Your task to perform on an android device: Open accessibility settings Image 0: 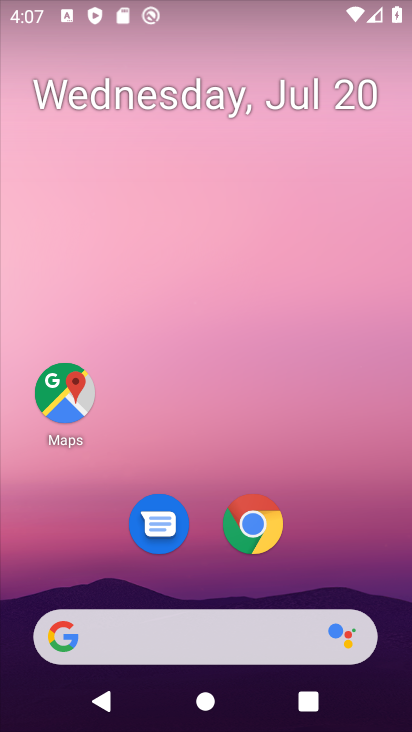
Step 0: drag from (341, 529) to (297, 125)
Your task to perform on an android device: Open accessibility settings Image 1: 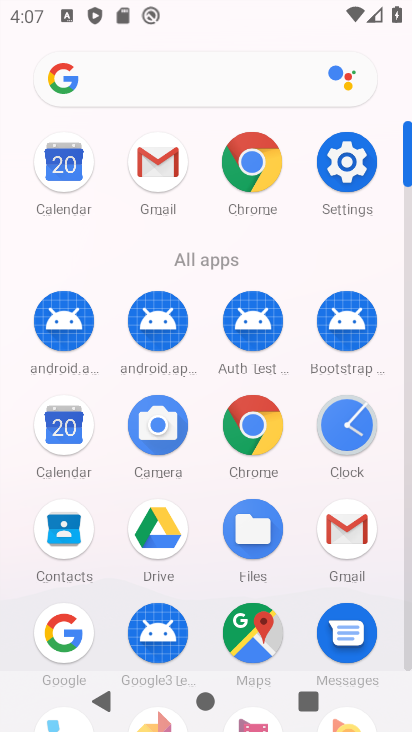
Step 1: click (342, 182)
Your task to perform on an android device: Open accessibility settings Image 2: 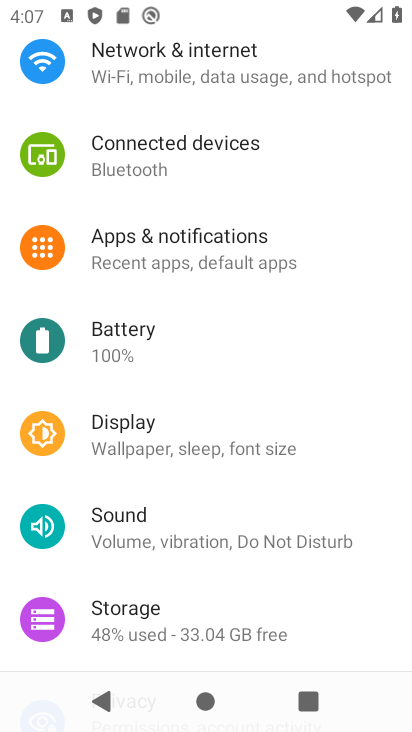
Step 2: drag from (251, 586) to (230, 141)
Your task to perform on an android device: Open accessibility settings Image 3: 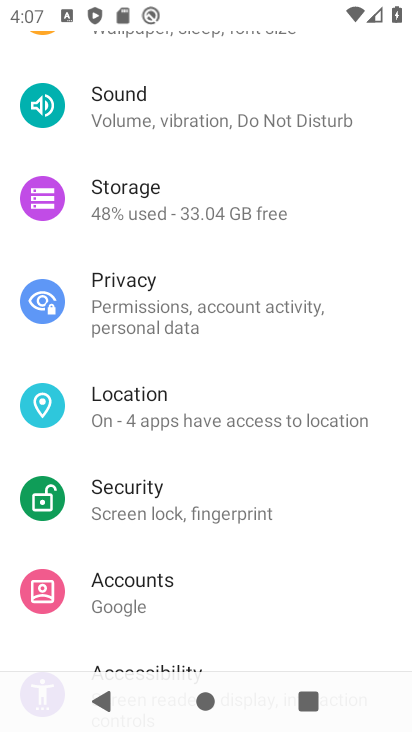
Step 3: drag from (237, 460) to (232, 138)
Your task to perform on an android device: Open accessibility settings Image 4: 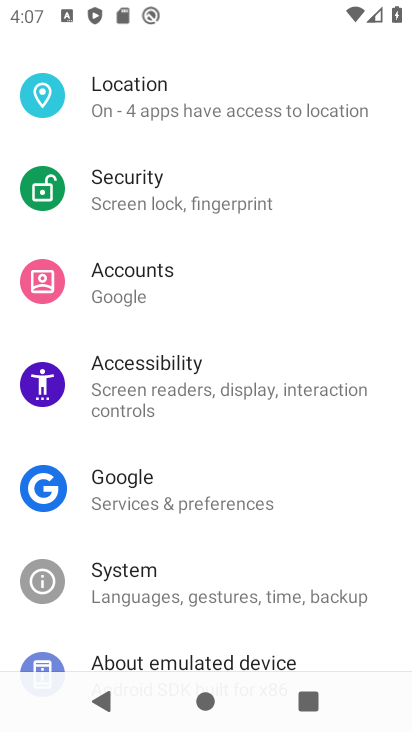
Step 4: click (215, 374)
Your task to perform on an android device: Open accessibility settings Image 5: 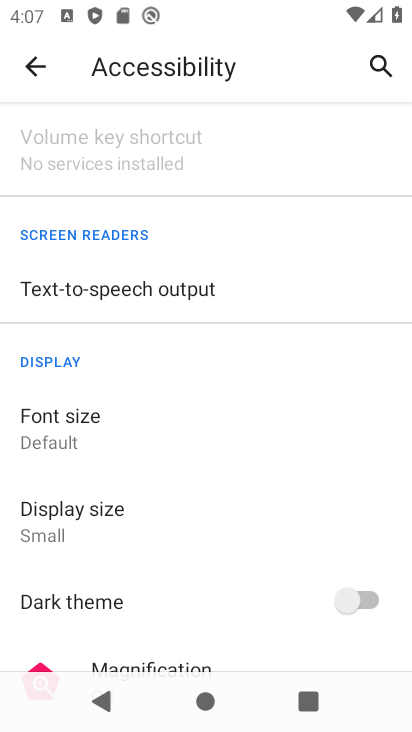
Step 5: task complete